Your task to perform on an android device: Check the weather Image 0: 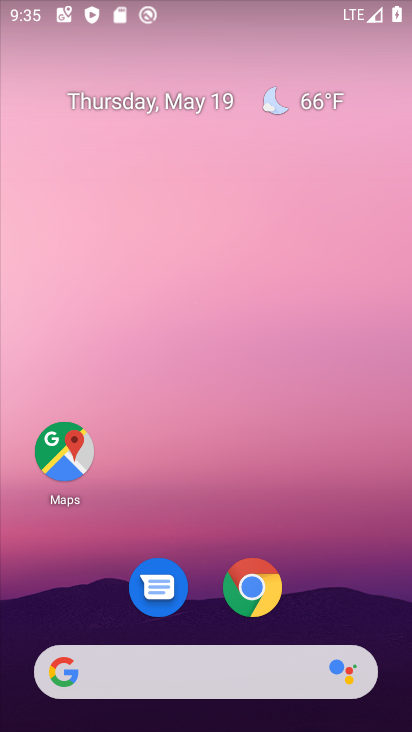
Step 0: press home button
Your task to perform on an android device: Check the weather Image 1: 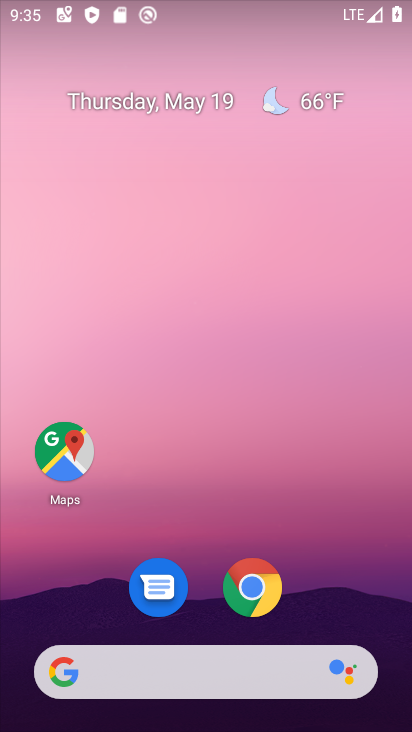
Step 1: drag from (231, 425) to (262, 233)
Your task to perform on an android device: Check the weather Image 2: 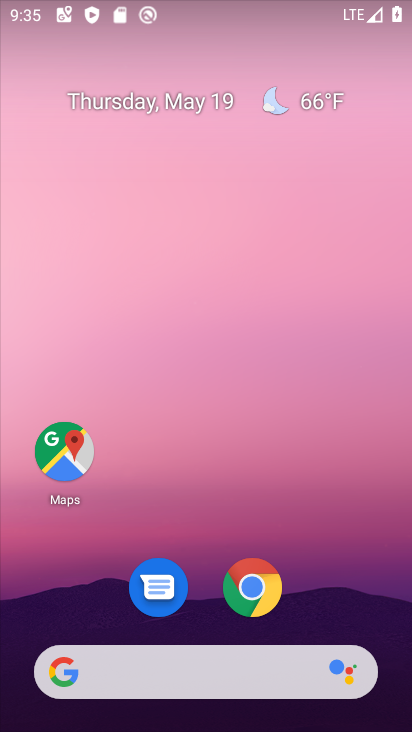
Step 2: drag from (220, 649) to (303, 112)
Your task to perform on an android device: Check the weather Image 3: 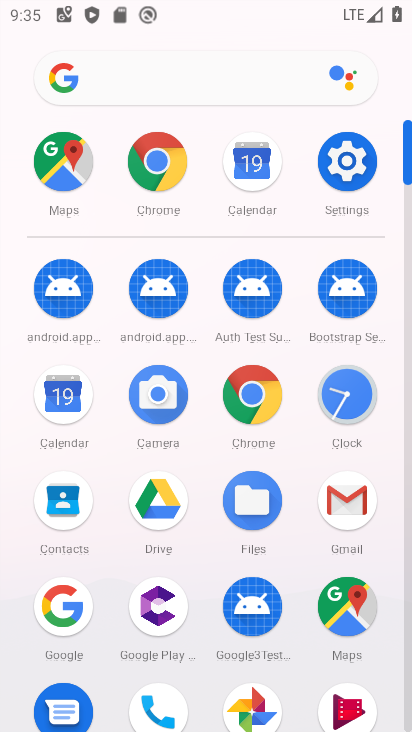
Step 3: click (149, 84)
Your task to perform on an android device: Check the weather Image 4: 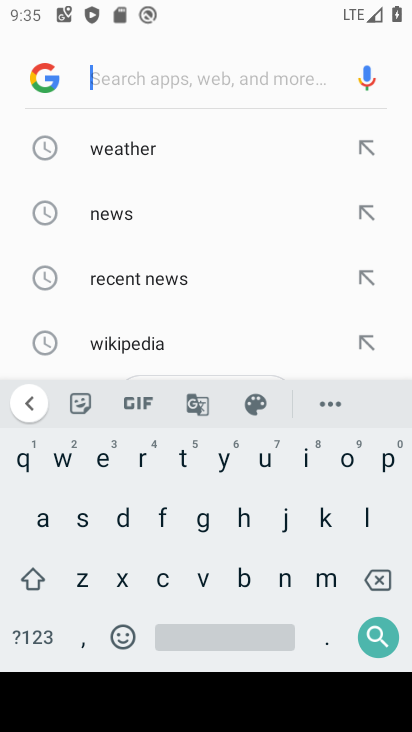
Step 4: click (102, 159)
Your task to perform on an android device: Check the weather Image 5: 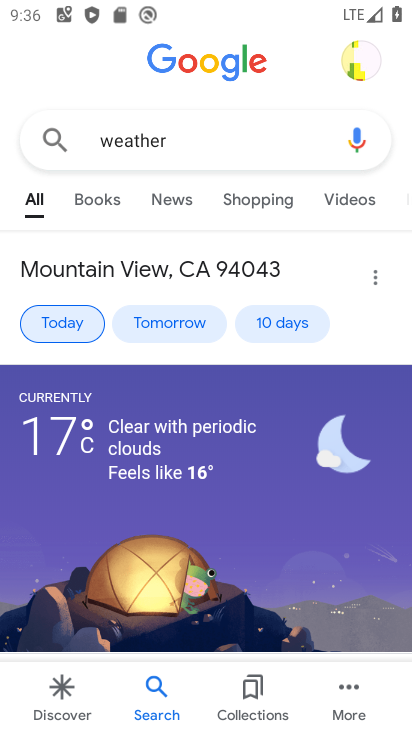
Step 5: task complete